Your task to perform on an android device: Open Google Chrome Image 0: 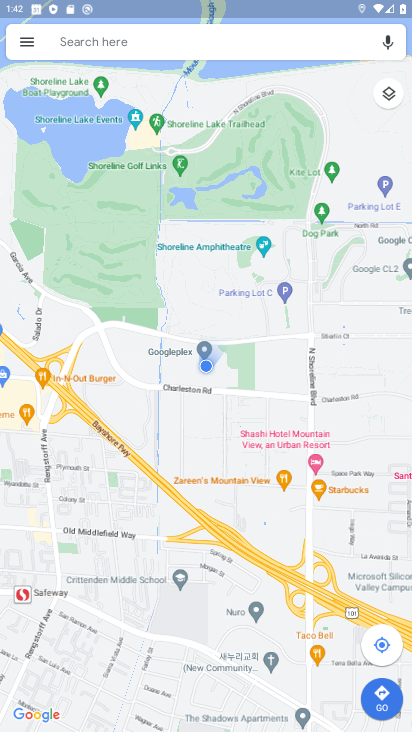
Step 0: press back button
Your task to perform on an android device: Open Google Chrome Image 1: 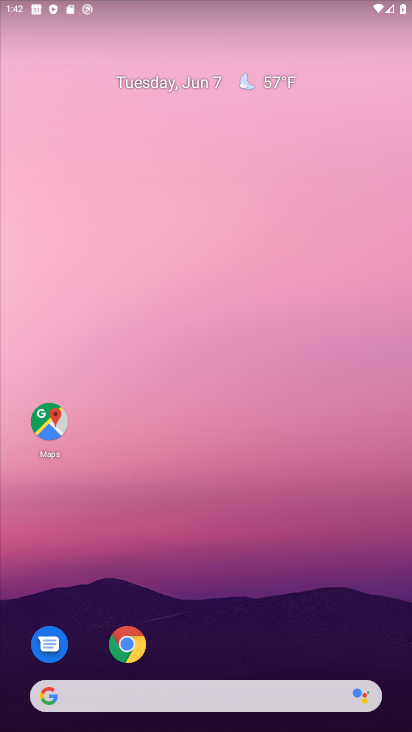
Step 1: drag from (216, 584) to (185, 140)
Your task to perform on an android device: Open Google Chrome Image 2: 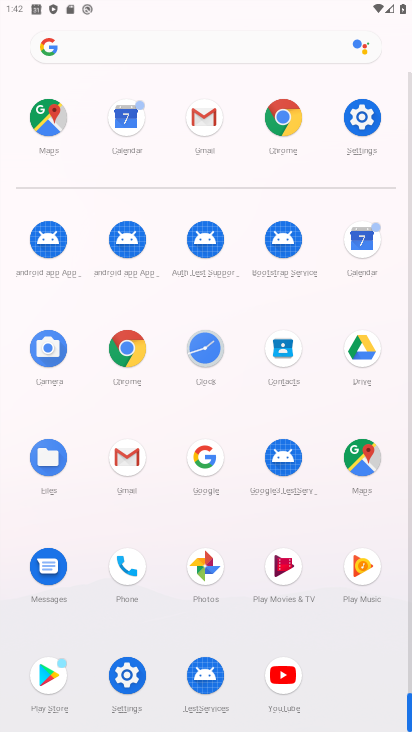
Step 2: click (281, 133)
Your task to perform on an android device: Open Google Chrome Image 3: 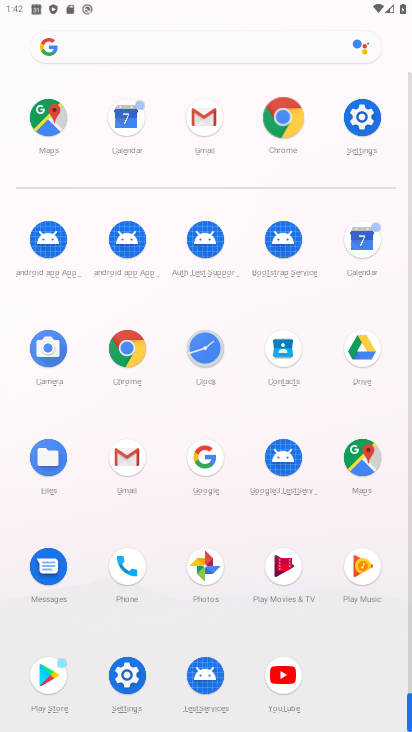
Step 3: click (281, 133)
Your task to perform on an android device: Open Google Chrome Image 4: 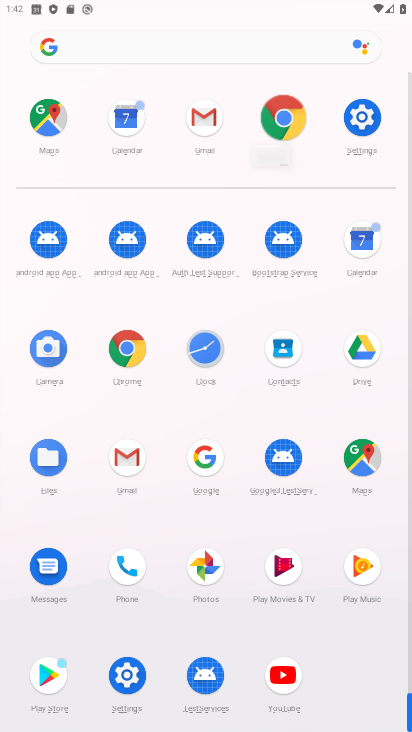
Step 4: click (281, 133)
Your task to perform on an android device: Open Google Chrome Image 5: 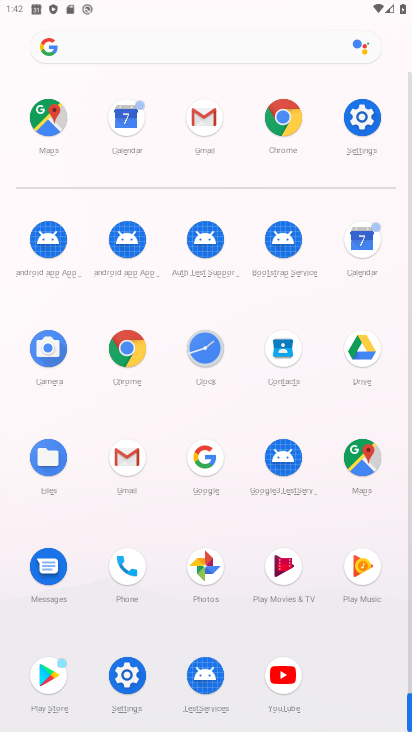
Step 5: click (282, 132)
Your task to perform on an android device: Open Google Chrome Image 6: 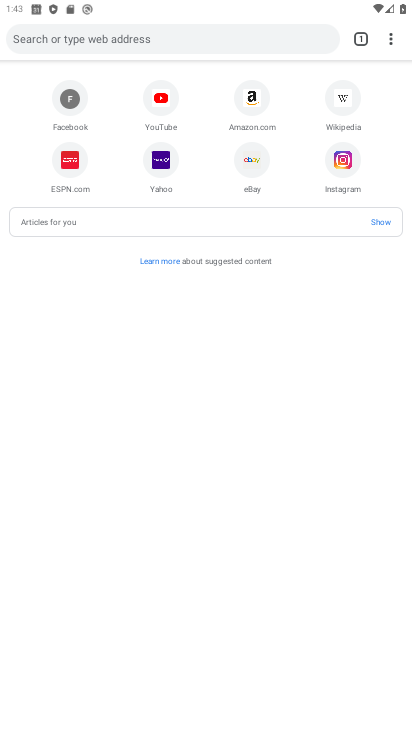
Step 6: task complete